Your task to perform on an android device: change notifications settings Image 0: 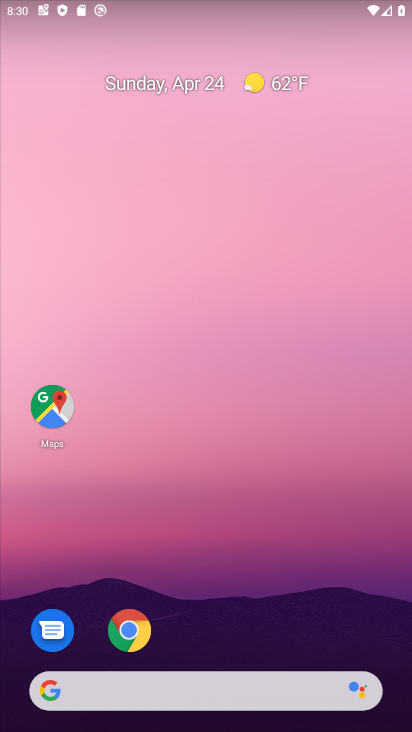
Step 0: drag from (260, 536) to (223, 7)
Your task to perform on an android device: change notifications settings Image 1: 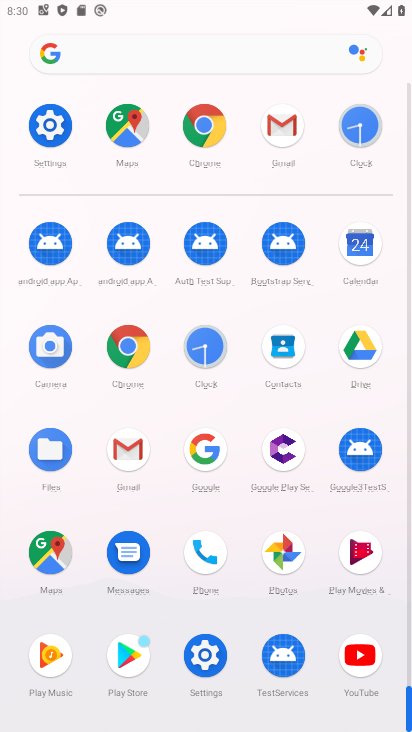
Step 1: drag from (14, 509) to (17, 302)
Your task to perform on an android device: change notifications settings Image 2: 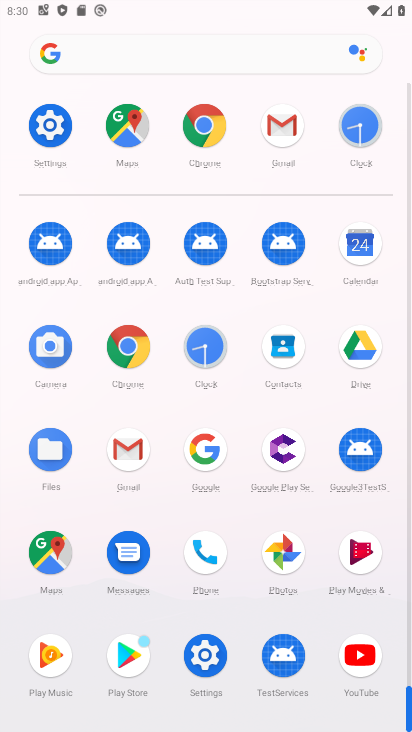
Step 2: click (205, 652)
Your task to perform on an android device: change notifications settings Image 3: 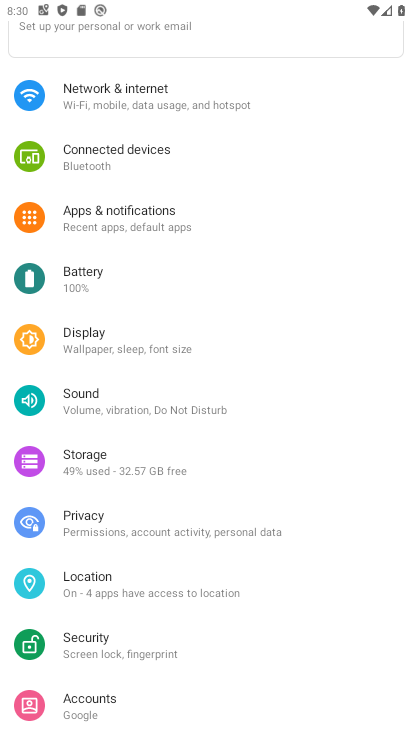
Step 3: click (137, 218)
Your task to perform on an android device: change notifications settings Image 4: 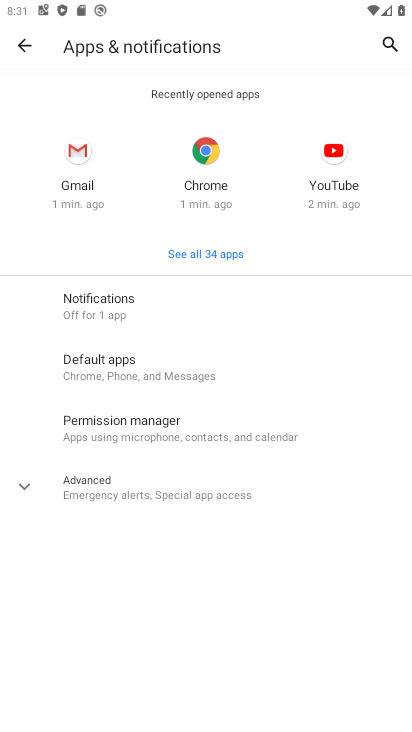
Step 4: click (162, 304)
Your task to perform on an android device: change notifications settings Image 5: 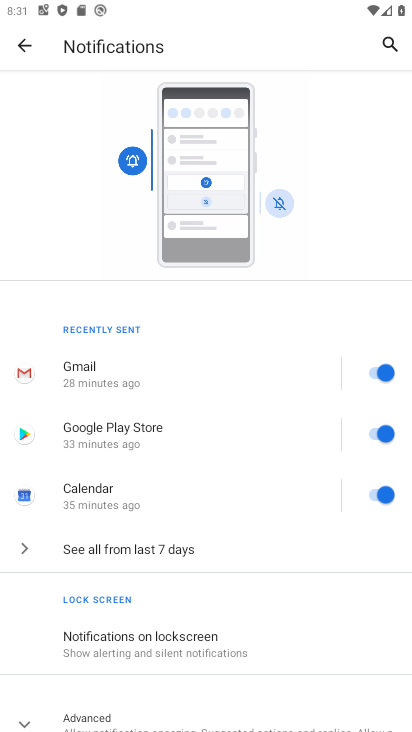
Step 5: drag from (260, 576) to (289, 188)
Your task to perform on an android device: change notifications settings Image 6: 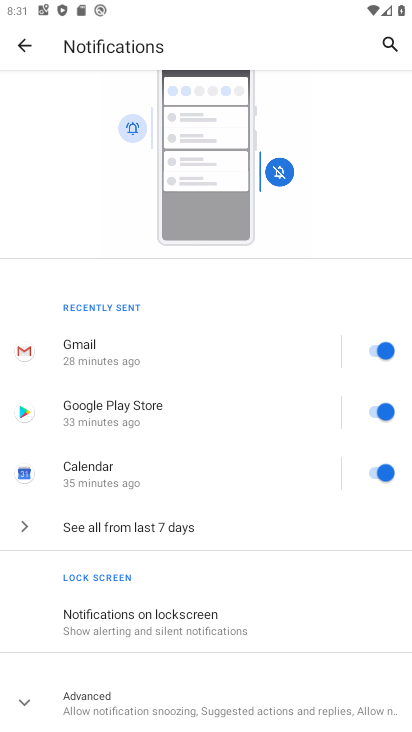
Step 6: click (92, 697)
Your task to perform on an android device: change notifications settings Image 7: 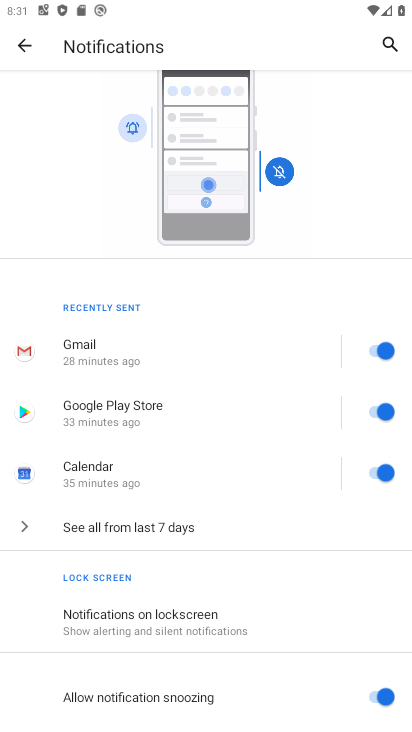
Step 7: task complete